Your task to perform on an android device: clear history in the chrome app Image 0: 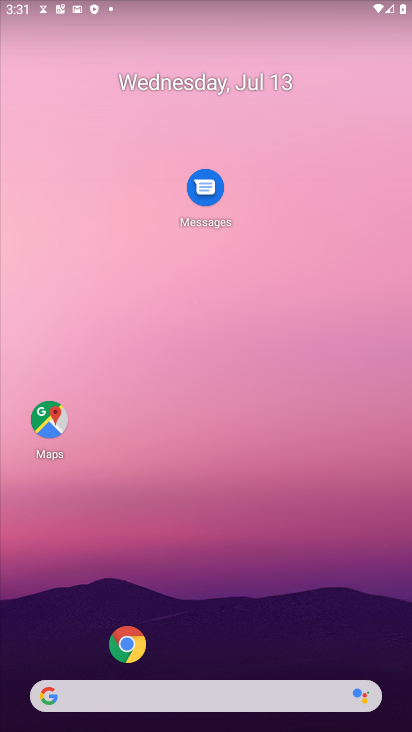
Step 0: click (95, 697)
Your task to perform on an android device: clear history in the chrome app Image 1: 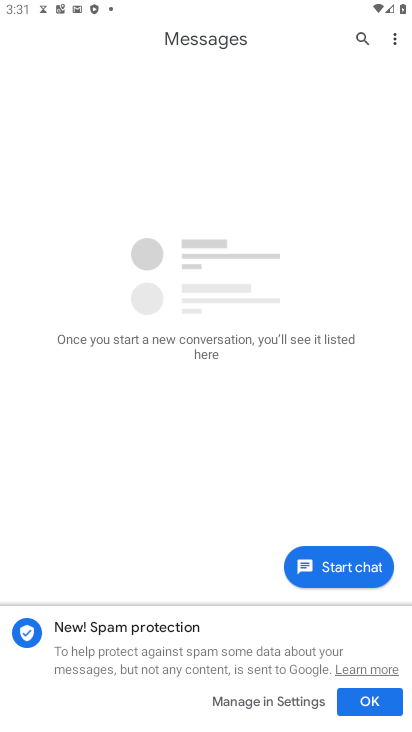
Step 1: press home button
Your task to perform on an android device: clear history in the chrome app Image 2: 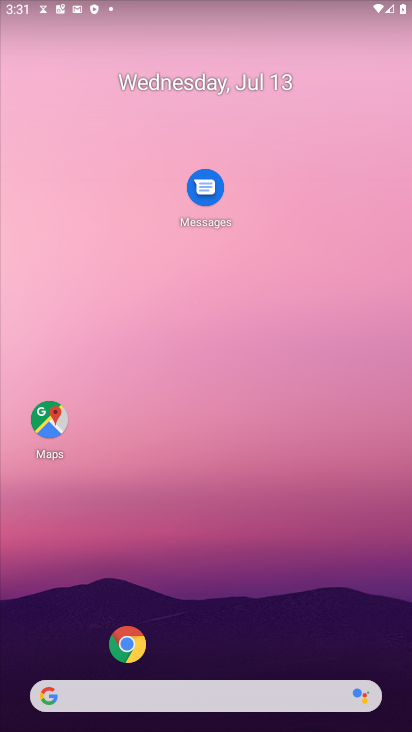
Step 2: click (134, 648)
Your task to perform on an android device: clear history in the chrome app Image 3: 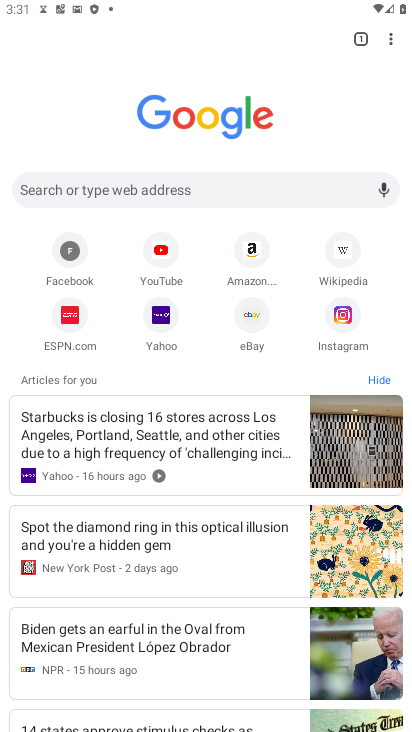
Step 3: click (396, 35)
Your task to perform on an android device: clear history in the chrome app Image 4: 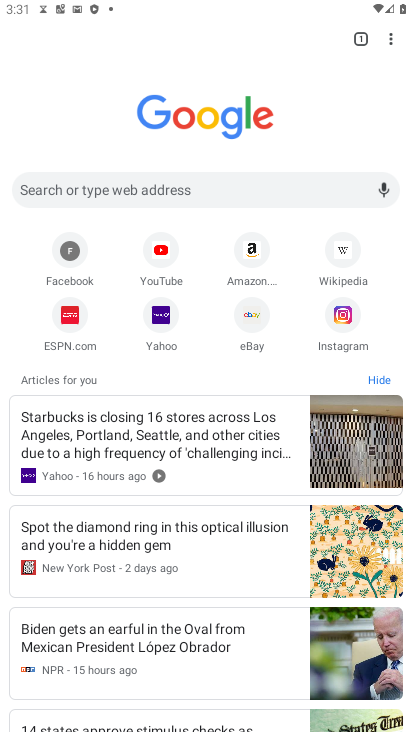
Step 4: click (393, 38)
Your task to perform on an android device: clear history in the chrome app Image 5: 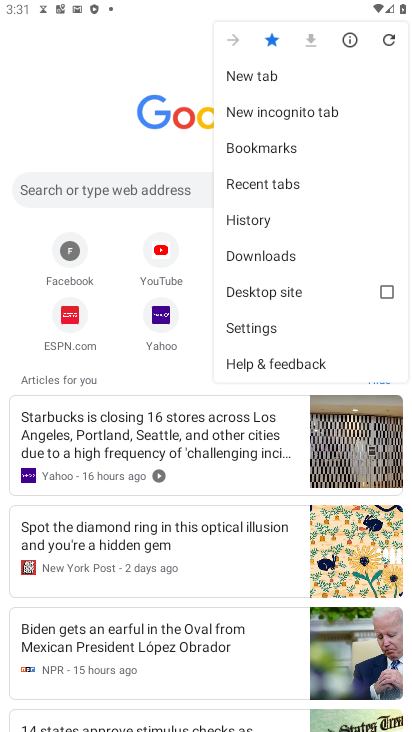
Step 5: click (248, 216)
Your task to perform on an android device: clear history in the chrome app Image 6: 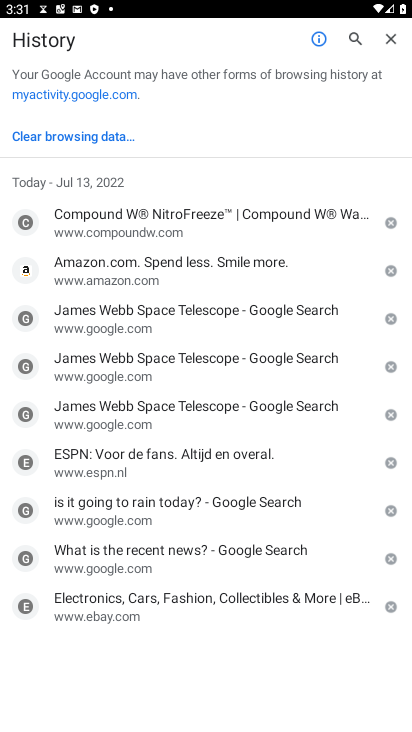
Step 6: click (30, 147)
Your task to perform on an android device: clear history in the chrome app Image 7: 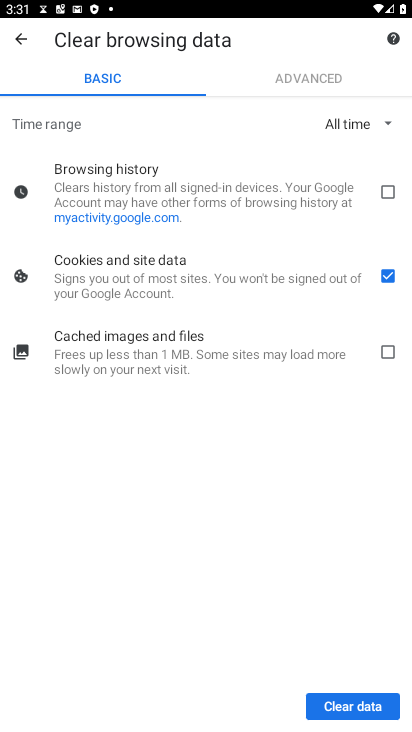
Step 7: click (387, 187)
Your task to perform on an android device: clear history in the chrome app Image 8: 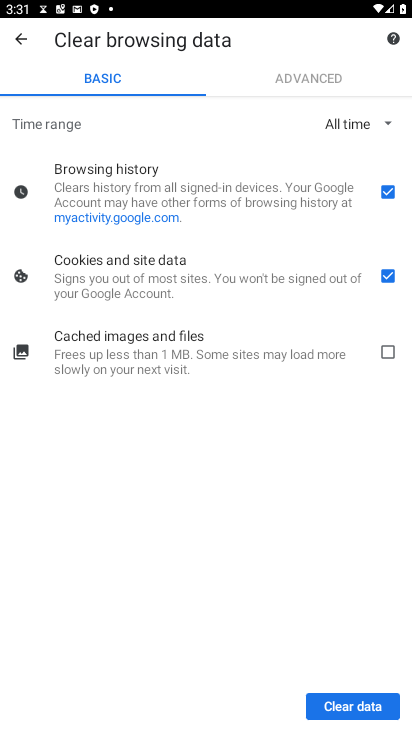
Step 8: click (390, 272)
Your task to perform on an android device: clear history in the chrome app Image 9: 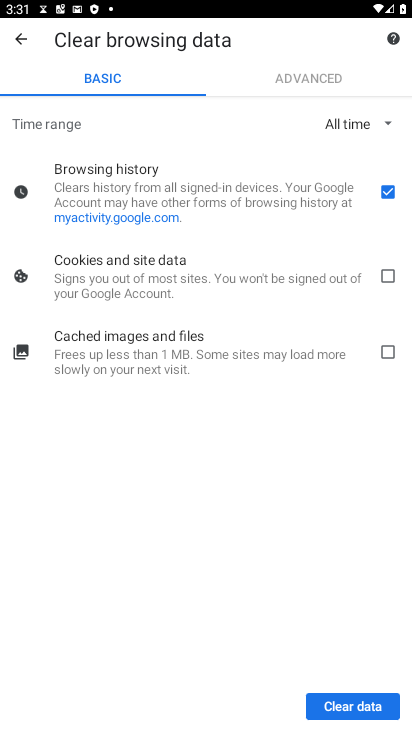
Step 9: click (343, 708)
Your task to perform on an android device: clear history in the chrome app Image 10: 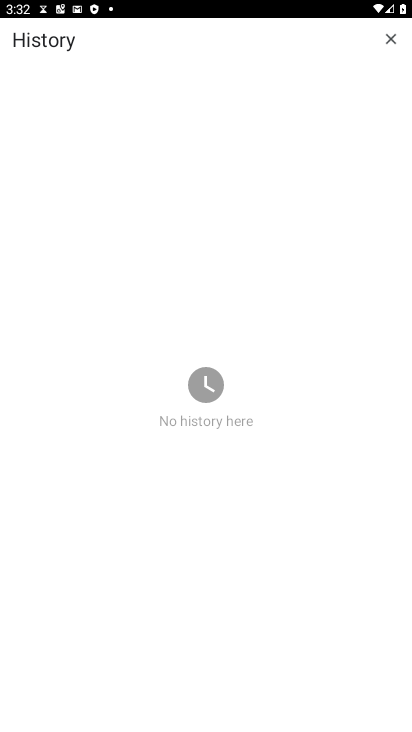
Step 10: task complete